Your task to perform on an android device: turn off location Image 0: 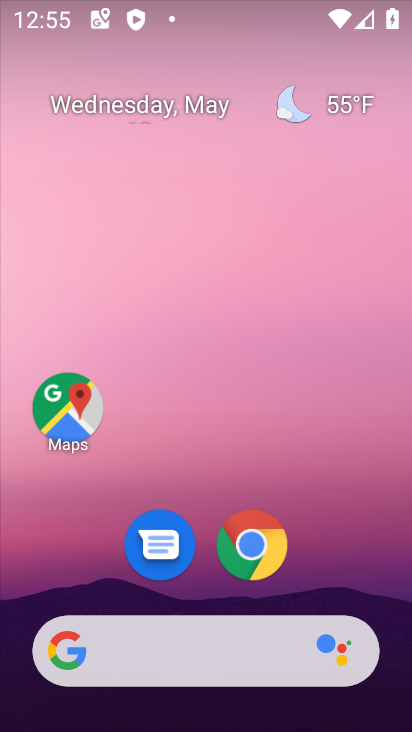
Step 0: drag from (355, 552) to (405, 372)
Your task to perform on an android device: turn off location Image 1: 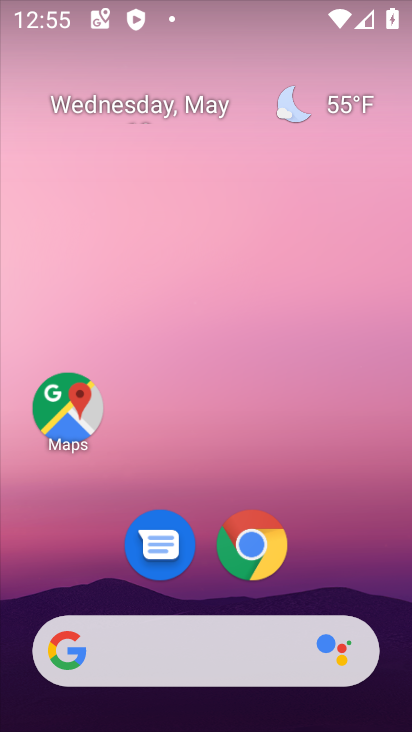
Step 1: drag from (357, 578) to (325, 45)
Your task to perform on an android device: turn off location Image 2: 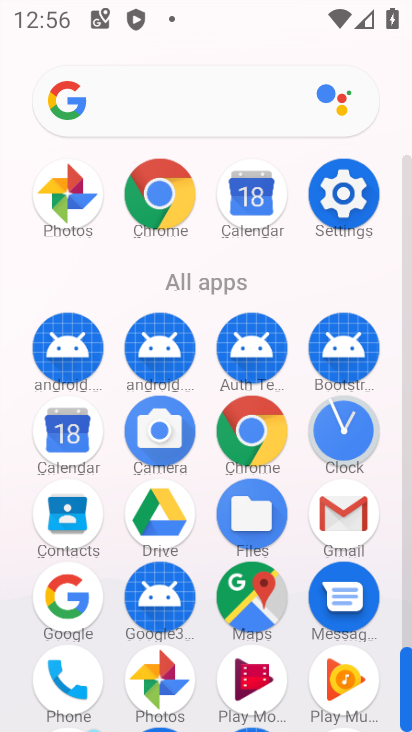
Step 2: click (343, 198)
Your task to perform on an android device: turn off location Image 3: 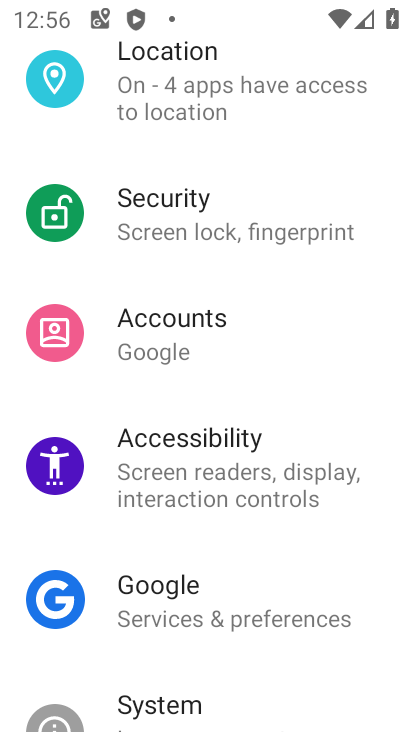
Step 3: click (179, 135)
Your task to perform on an android device: turn off location Image 4: 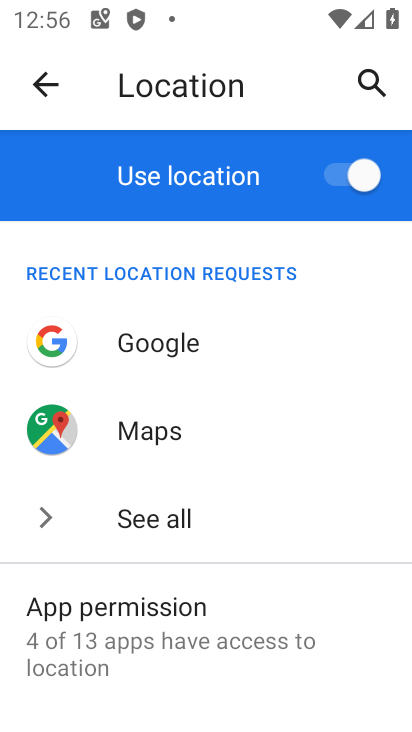
Step 4: click (348, 179)
Your task to perform on an android device: turn off location Image 5: 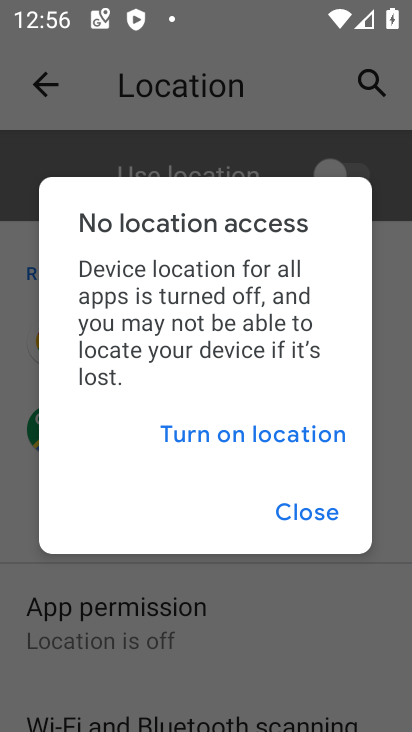
Step 5: task complete